Your task to perform on an android device: turn on the 12-hour format for clock Image 0: 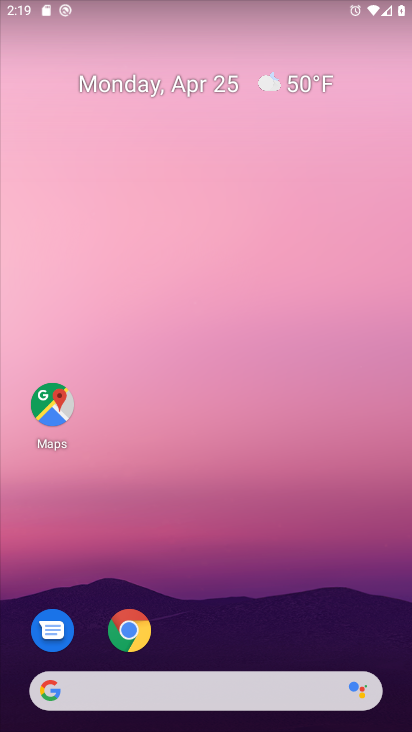
Step 0: drag from (257, 612) to (264, 248)
Your task to perform on an android device: turn on the 12-hour format for clock Image 1: 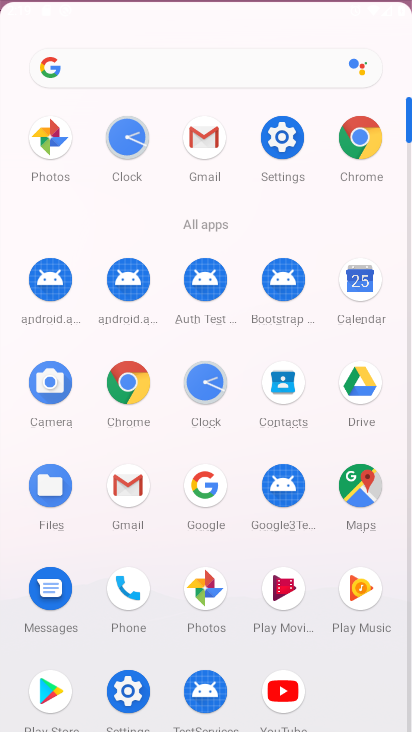
Step 1: click (264, 248)
Your task to perform on an android device: turn on the 12-hour format for clock Image 2: 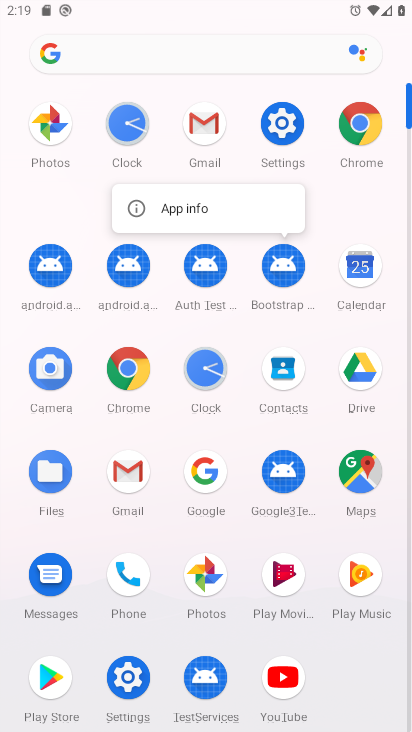
Step 2: click (287, 131)
Your task to perform on an android device: turn on the 12-hour format for clock Image 3: 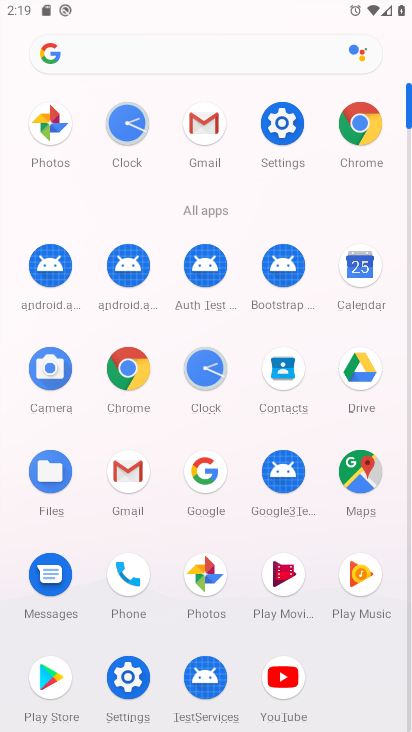
Step 3: click (287, 131)
Your task to perform on an android device: turn on the 12-hour format for clock Image 4: 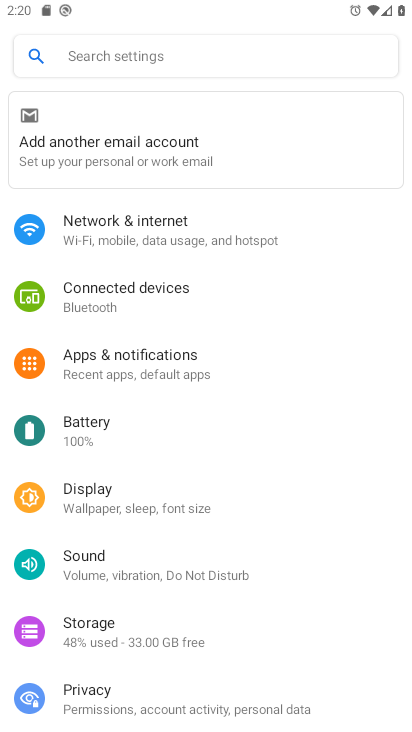
Step 4: task complete